Your task to perform on an android device: change alarm snooze length Image 0: 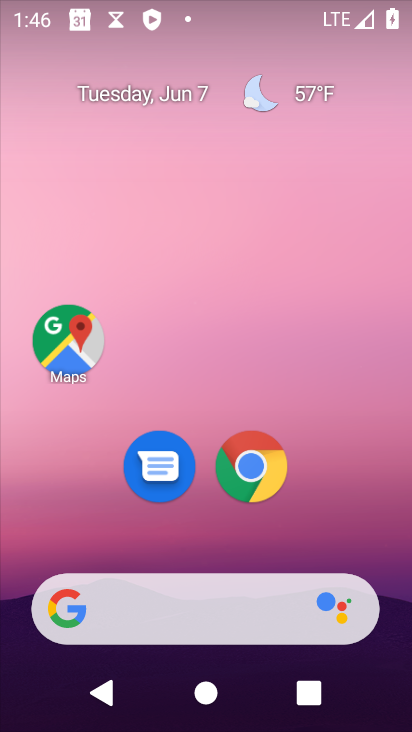
Step 0: drag from (204, 554) to (292, 59)
Your task to perform on an android device: change alarm snooze length Image 1: 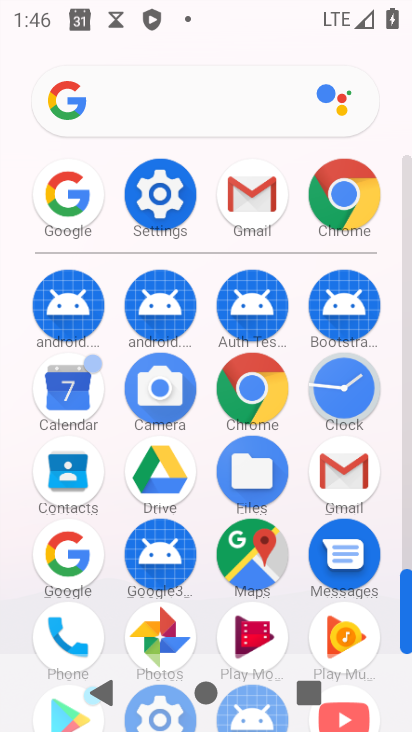
Step 1: click (354, 405)
Your task to perform on an android device: change alarm snooze length Image 2: 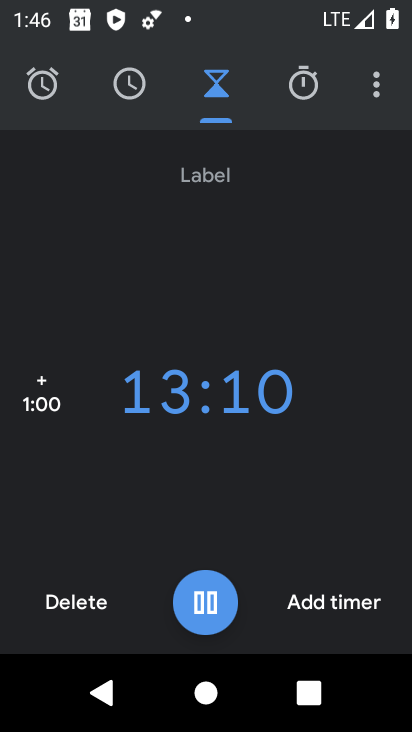
Step 2: click (379, 86)
Your task to perform on an android device: change alarm snooze length Image 3: 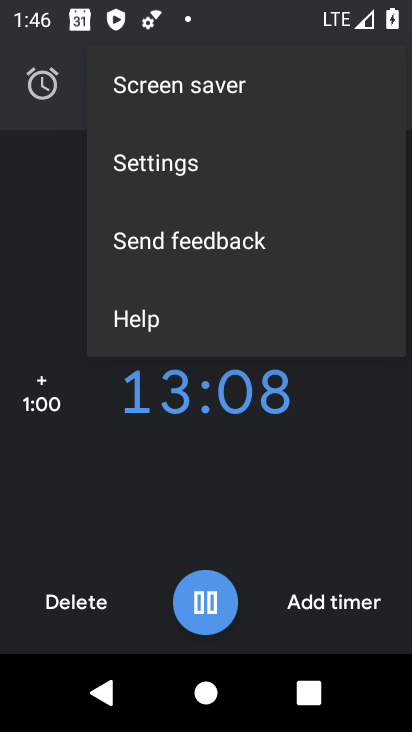
Step 3: click (196, 162)
Your task to perform on an android device: change alarm snooze length Image 4: 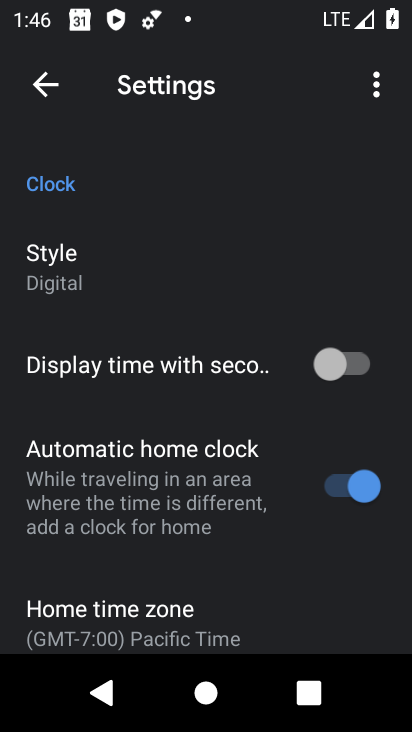
Step 4: drag from (169, 557) to (235, 87)
Your task to perform on an android device: change alarm snooze length Image 5: 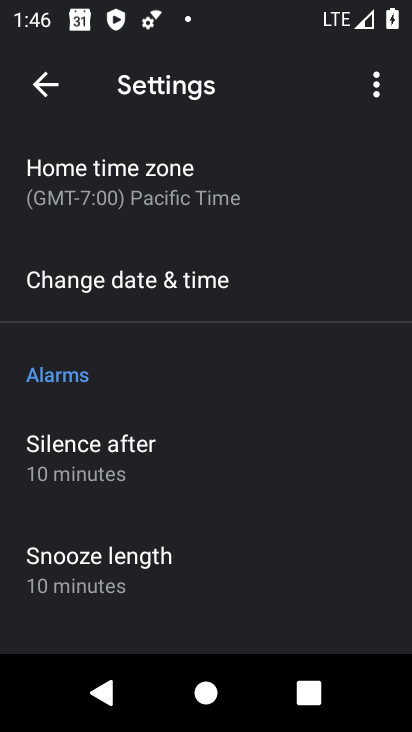
Step 5: click (151, 579)
Your task to perform on an android device: change alarm snooze length Image 6: 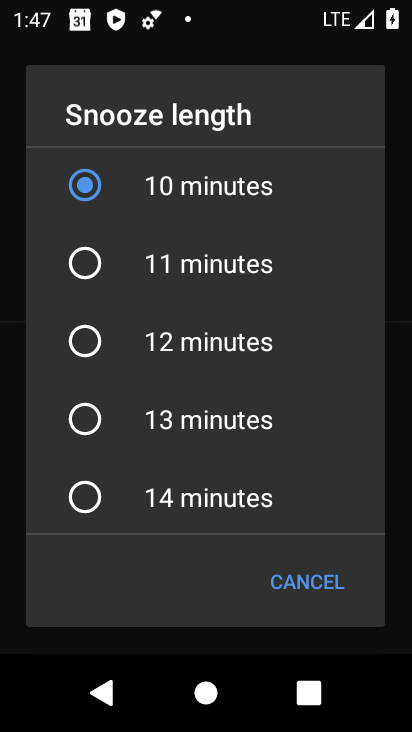
Step 6: click (88, 267)
Your task to perform on an android device: change alarm snooze length Image 7: 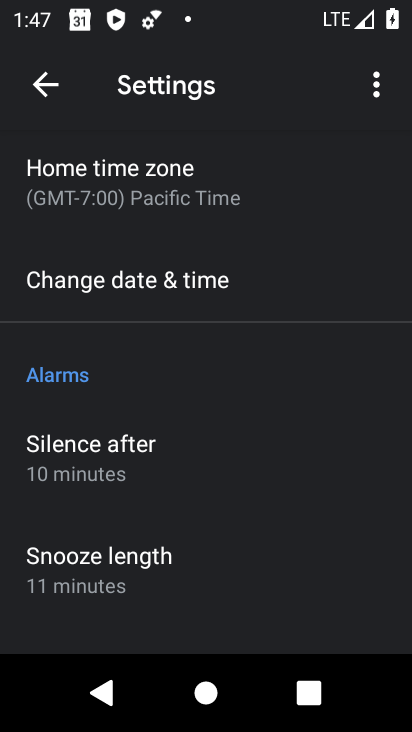
Step 7: task complete